Your task to perform on an android device: open app "Etsy: Buy & Sell Unique Items" (install if not already installed) and enter user name: "camp@inbox.com" and password: "unrelated" Image 0: 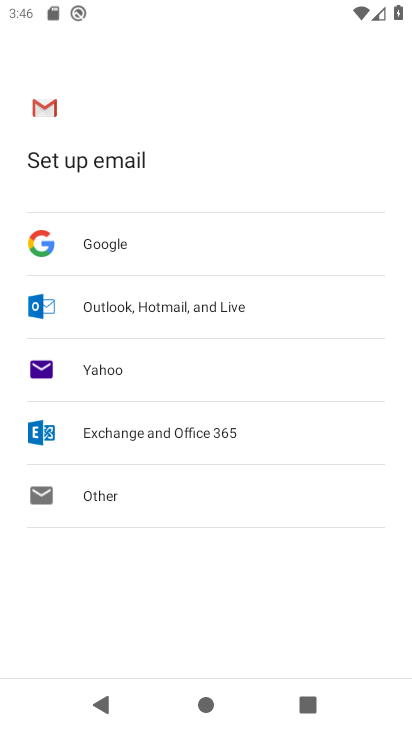
Step 0: press home button
Your task to perform on an android device: open app "Etsy: Buy & Sell Unique Items" (install if not already installed) and enter user name: "camp@inbox.com" and password: "unrelated" Image 1: 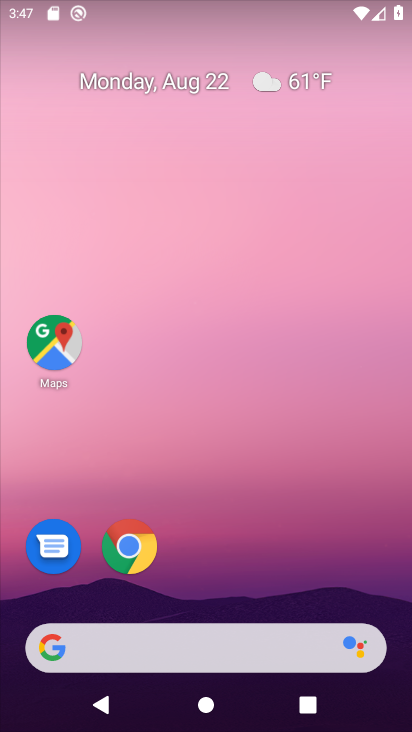
Step 1: drag from (401, 628) to (328, 141)
Your task to perform on an android device: open app "Etsy: Buy & Sell Unique Items" (install if not already installed) and enter user name: "camp@inbox.com" and password: "unrelated" Image 2: 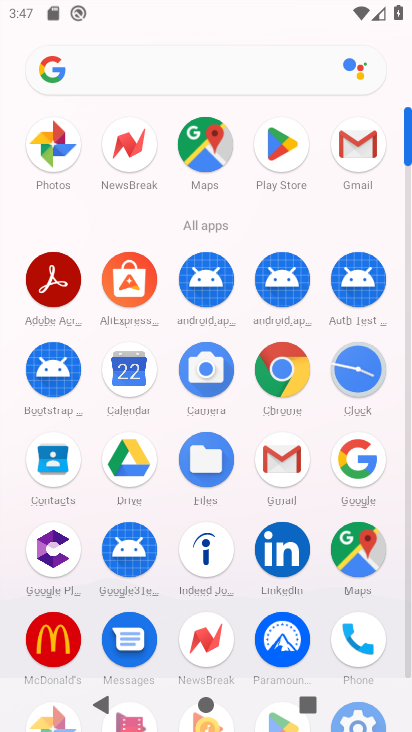
Step 2: drag from (165, 606) to (170, 367)
Your task to perform on an android device: open app "Etsy: Buy & Sell Unique Items" (install if not already installed) and enter user name: "camp@inbox.com" and password: "unrelated" Image 3: 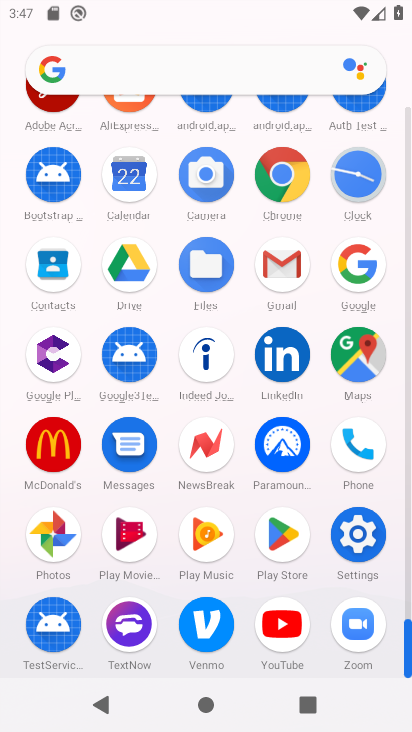
Step 3: click (283, 534)
Your task to perform on an android device: open app "Etsy: Buy & Sell Unique Items" (install if not already installed) and enter user name: "camp@inbox.com" and password: "unrelated" Image 4: 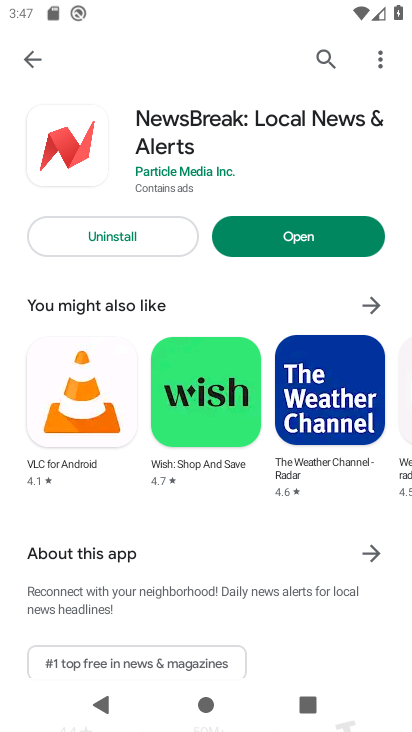
Step 4: click (327, 59)
Your task to perform on an android device: open app "Etsy: Buy & Sell Unique Items" (install if not already installed) and enter user name: "camp@inbox.com" and password: "unrelated" Image 5: 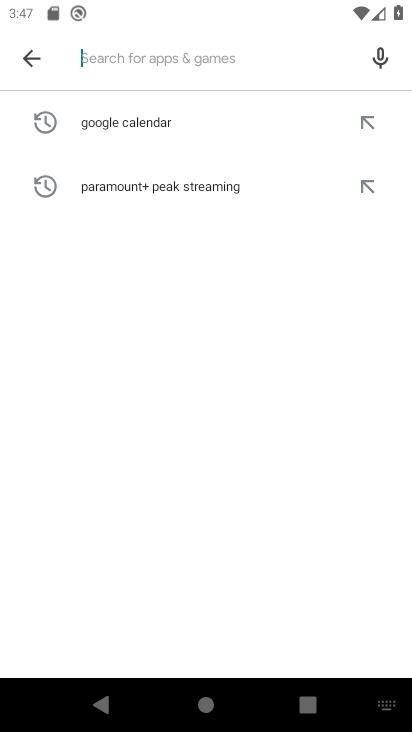
Step 5: type "Etsy: Buy & Sell Unique Items"
Your task to perform on an android device: open app "Etsy: Buy & Sell Unique Items" (install if not already installed) and enter user name: "camp@inbox.com" and password: "unrelated" Image 6: 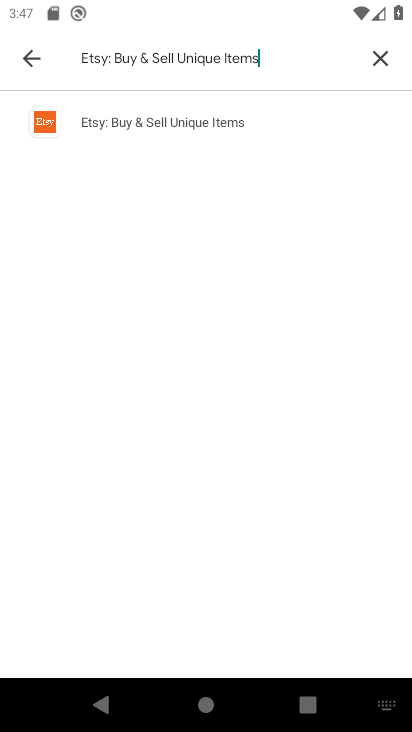
Step 6: click (146, 120)
Your task to perform on an android device: open app "Etsy: Buy & Sell Unique Items" (install if not already installed) and enter user name: "camp@inbox.com" and password: "unrelated" Image 7: 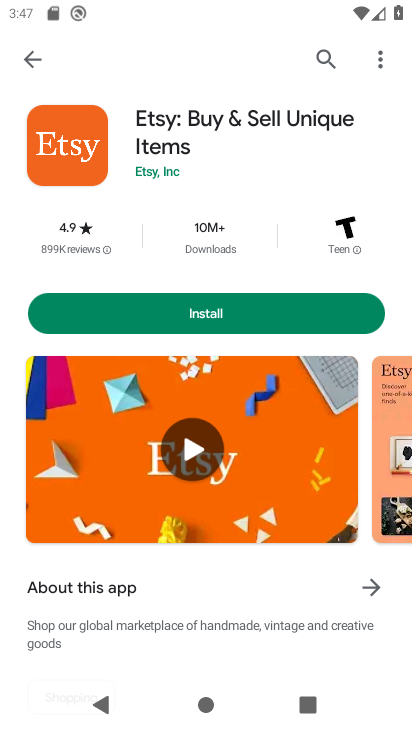
Step 7: click (207, 314)
Your task to perform on an android device: open app "Etsy: Buy & Sell Unique Items" (install if not already installed) and enter user name: "camp@inbox.com" and password: "unrelated" Image 8: 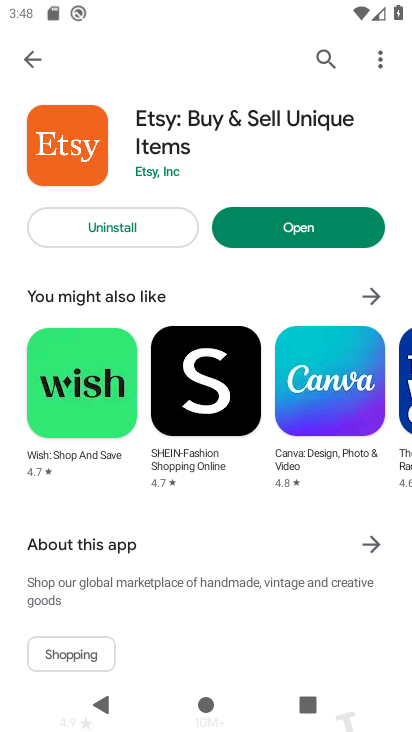
Step 8: click (295, 229)
Your task to perform on an android device: open app "Etsy: Buy & Sell Unique Items" (install if not already installed) and enter user name: "camp@inbox.com" and password: "unrelated" Image 9: 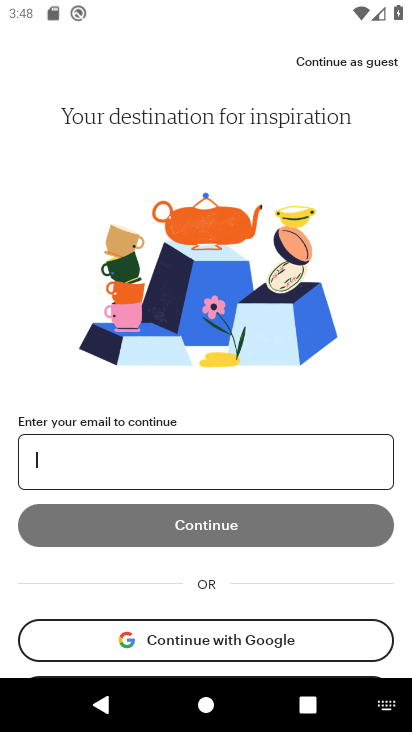
Step 9: type "camp@inbox.com"
Your task to perform on an android device: open app "Etsy: Buy & Sell Unique Items" (install if not already installed) and enter user name: "camp@inbox.com" and password: "unrelated" Image 10: 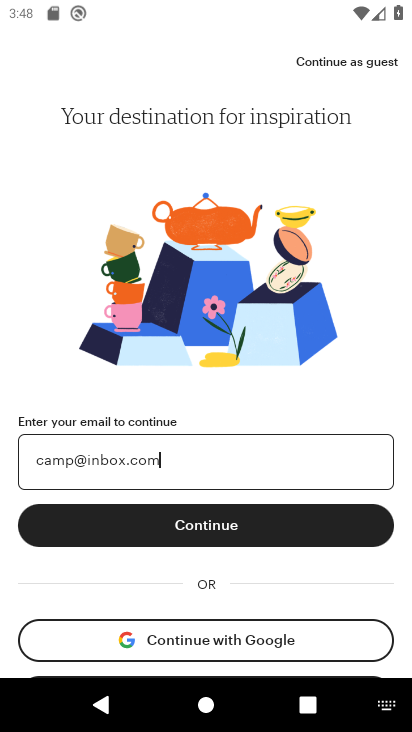
Step 10: click (221, 522)
Your task to perform on an android device: open app "Etsy: Buy & Sell Unique Items" (install if not already installed) and enter user name: "camp@inbox.com" and password: "unrelated" Image 11: 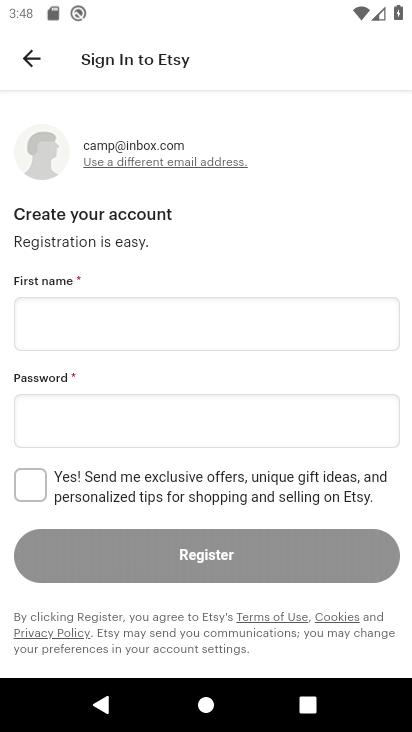
Step 11: click (135, 413)
Your task to perform on an android device: open app "Etsy: Buy & Sell Unique Items" (install if not already installed) and enter user name: "camp@inbox.com" and password: "unrelated" Image 12: 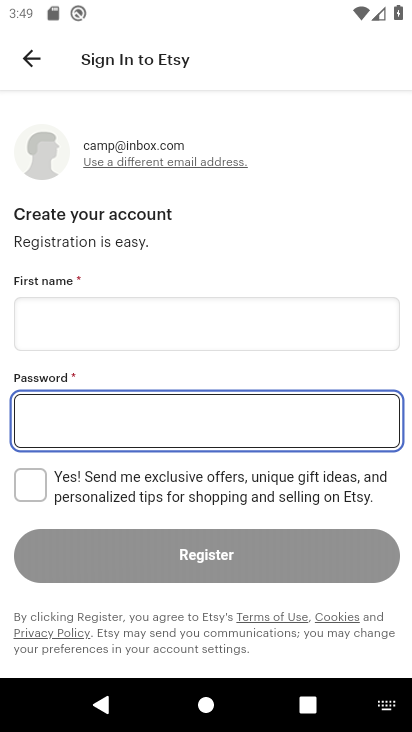
Step 12: type "unrelated"
Your task to perform on an android device: open app "Etsy: Buy & Sell Unique Items" (install if not already installed) and enter user name: "camp@inbox.com" and password: "unrelated" Image 13: 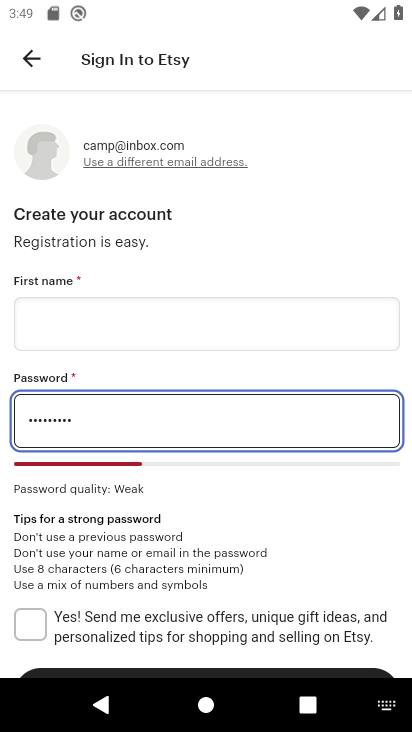
Step 13: task complete